Your task to perform on an android device: Open sound settings Image 0: 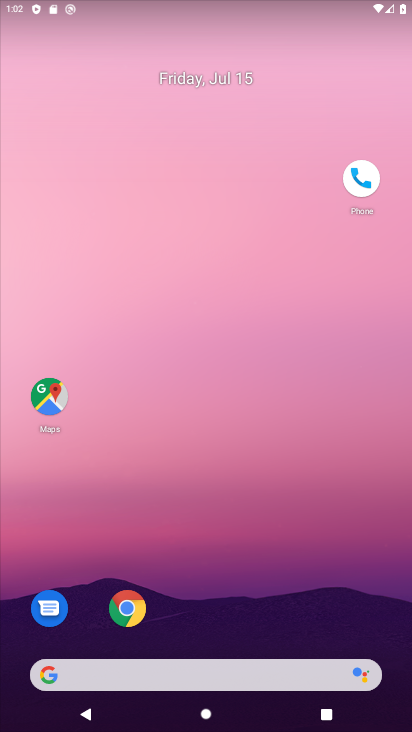
Step 0: click (272, 149)
Your task to perform on an android device: Open sound settings Image 1: 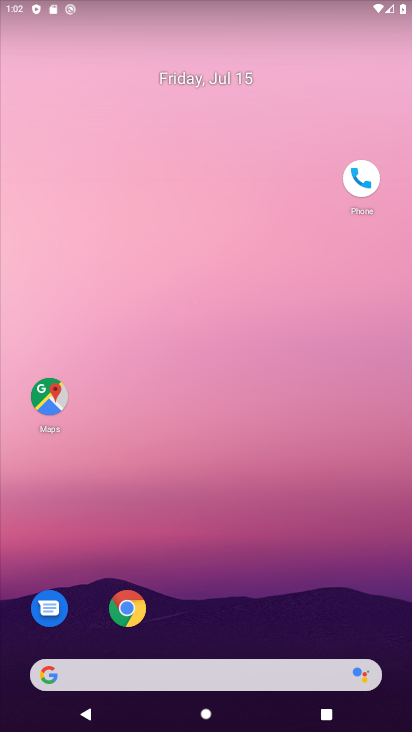
Step 1: drag from (202, 631) to (256, 132)
Your task to perform on an android device: Open sound settings Image 2: 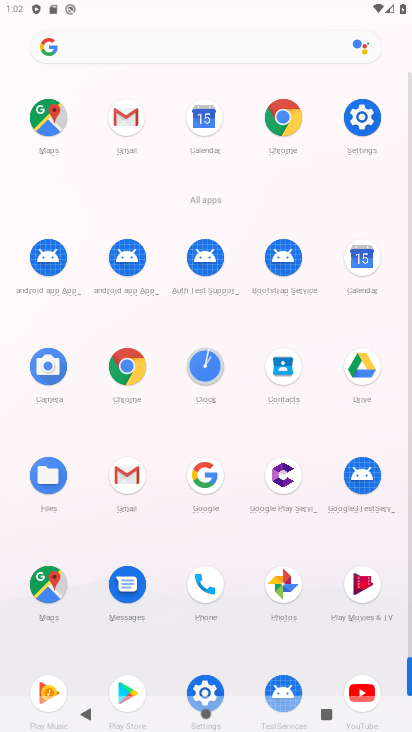
Step 2: click (363, 116)
Your task to perform on an android device: Open sound settings Image 3: 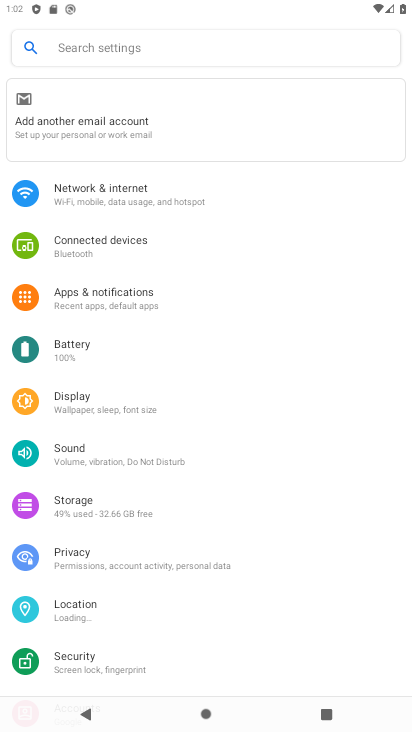
Step 3: click (77, 455)
Your task to perform on an android device: Open sound settings Image 4: 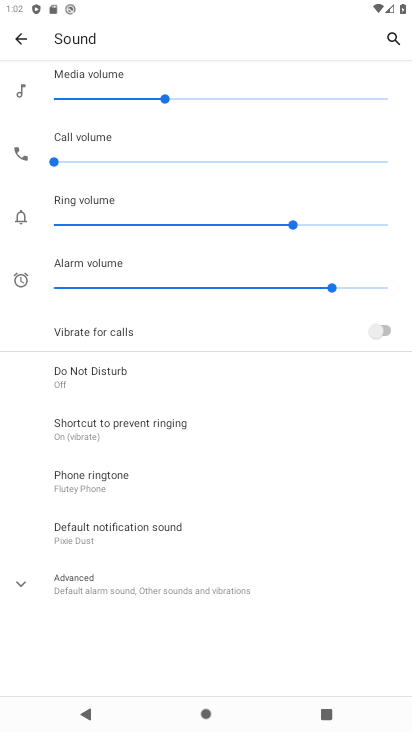
Step 4: task complete